Your task to perform on an android device: Go to calendar. Show me events next week Image 0: 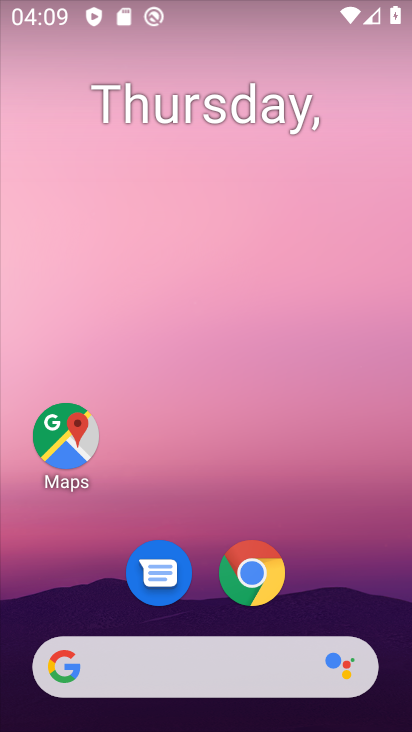
Step 0: press home button
Your task to perform on an android device: Go to calendar. Show me events next week Image 1: 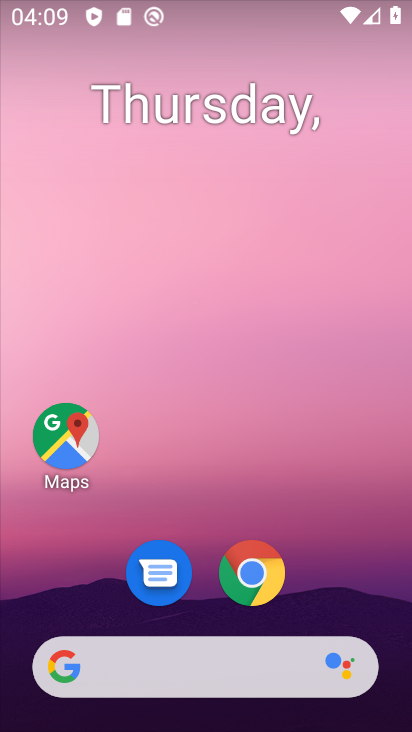
Step 1: drag from (384, 597) to (363, 259)
Your task to perform on an android device: Go to calendar. Show me events next week Image 2: 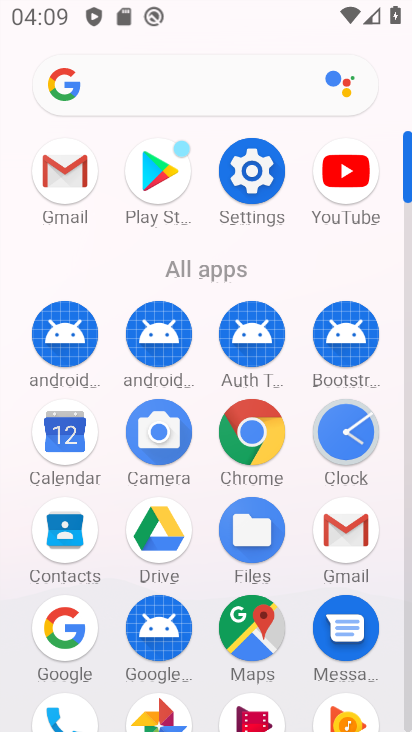
Step 2: click (405, 714)
Your task to perform on an android device: Go to calendar. Show me events next week Image 3: 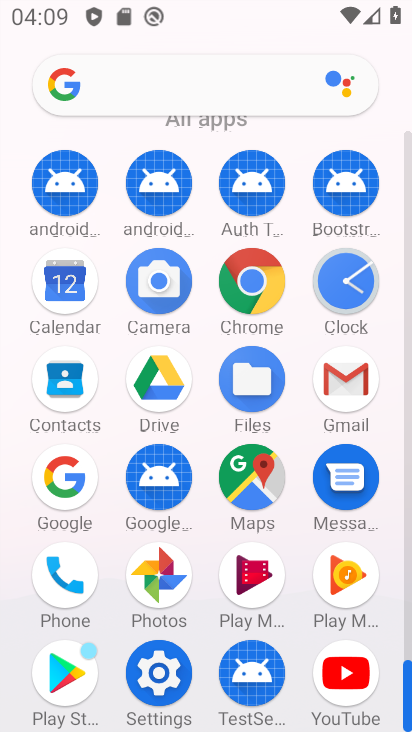
Step 3: click (70, 279)
Your task to perform on an android device: Go to calendar. Show me events next week Image 4: 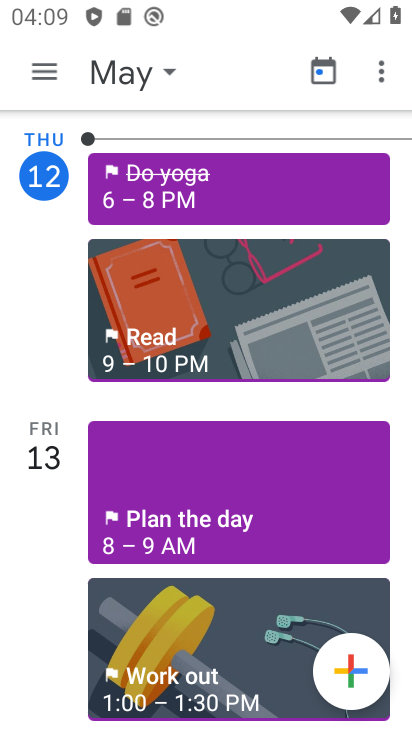
Step 4: click (49, 65)
Your task to perform on an android device: Go to calendar. Show me events next week Image 5: 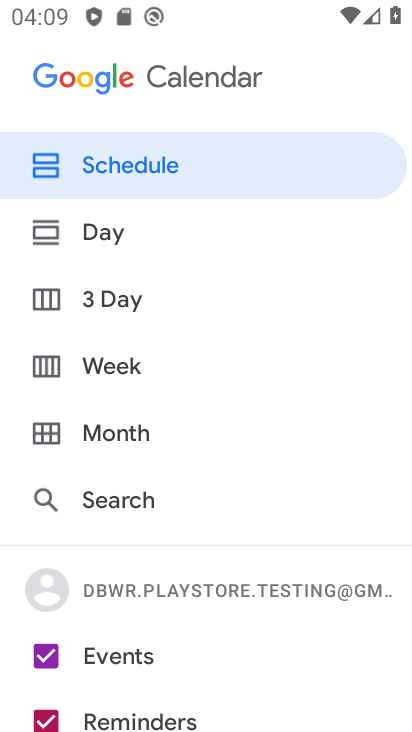
Step 5: click (115, 355)
Your task to perform on an android device: Go to calendar. Show me events next week Image 6: 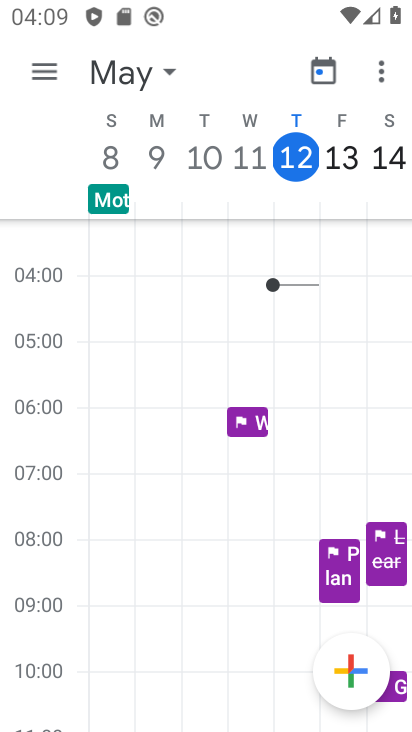
Step 6: click (166, 67)
Your task to perform on an android device: Go to calendar. Show me events next week Image 7: 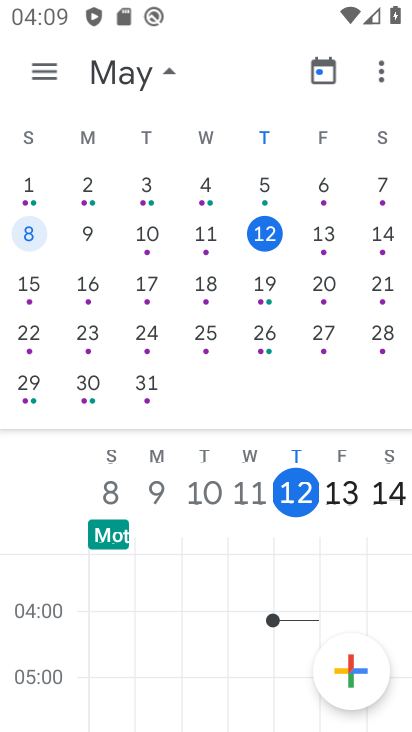
Step 7: click (24, 287)
Your task to perform on an android device: Go to calendar. Show me events next week Image 8: 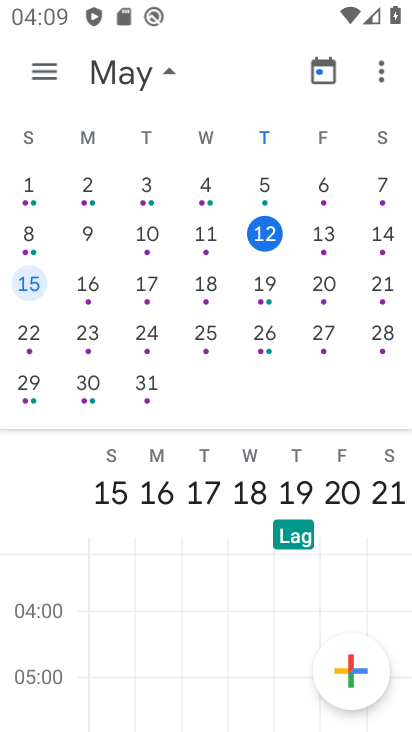
Step 8: task complete